Your task to perform on an android device: Show me popular games on the Play Store Image 0: 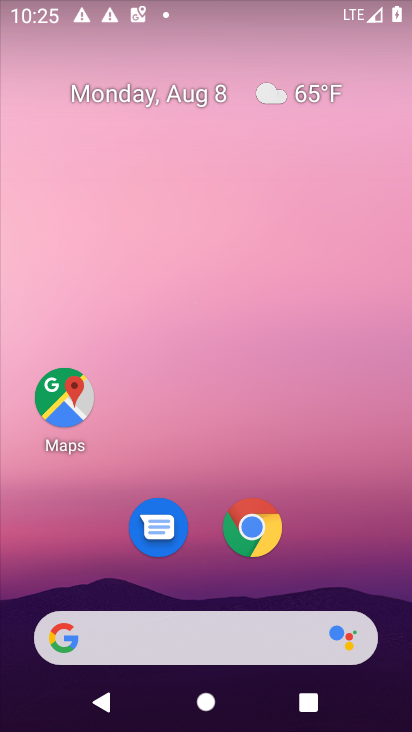
Step 0: drag from (401, 723) to (399, 287)
Your task to perform on an android device: Show me popular games on the Play Store Image 1: 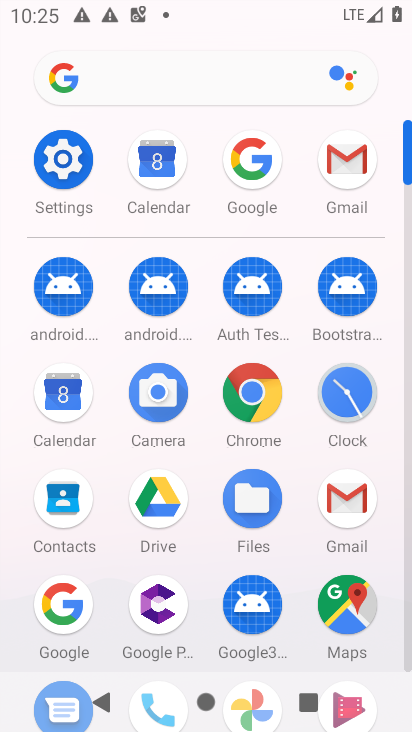
Step 1: drag from (195, 649) to (214, 378)
Your task to perform on an android device: Show me popular games on the Play Store Image 2: 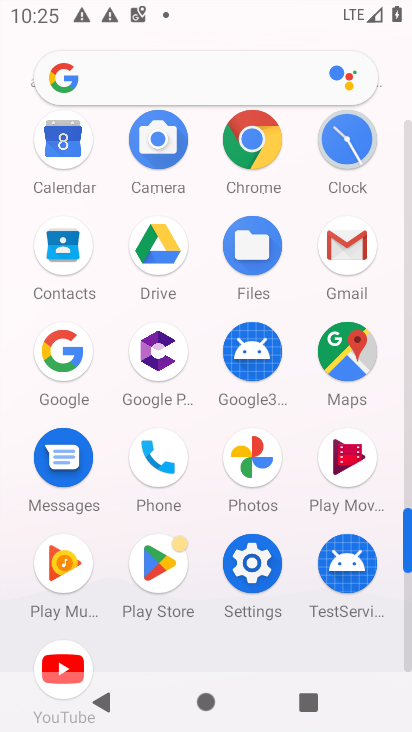
Step 2: click (157, 568)
Your task to perform on an android device: Show me popular games on the Play Store Image 3: 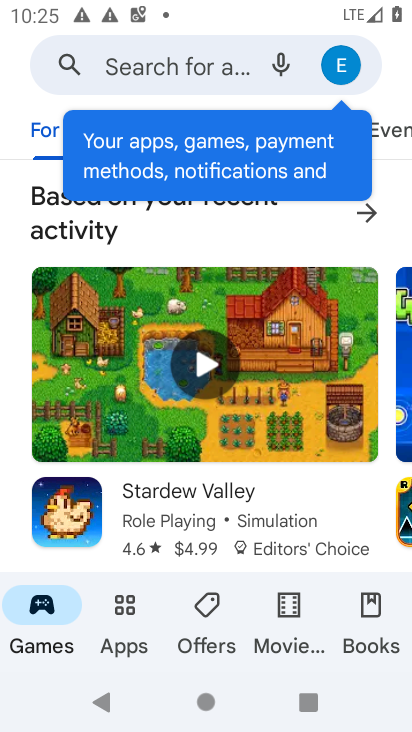
Step 3: click (261, 66)
Your task to perform on an android device: Show me popular games on the Play Store Image 4: 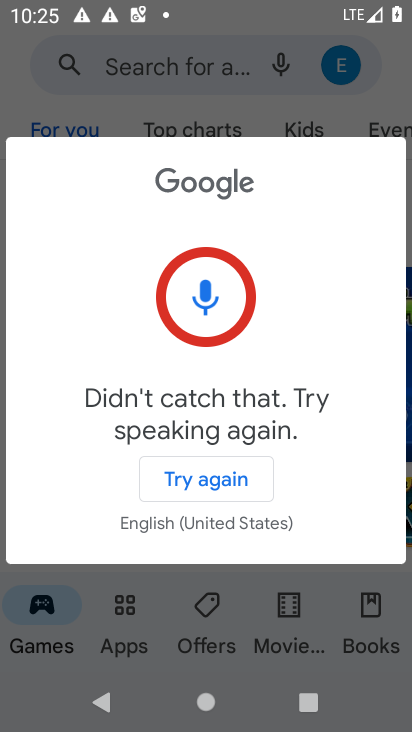
Step 4: press back button
Your task to perform on an android device: Show me popular games on the Play Store Image 5: 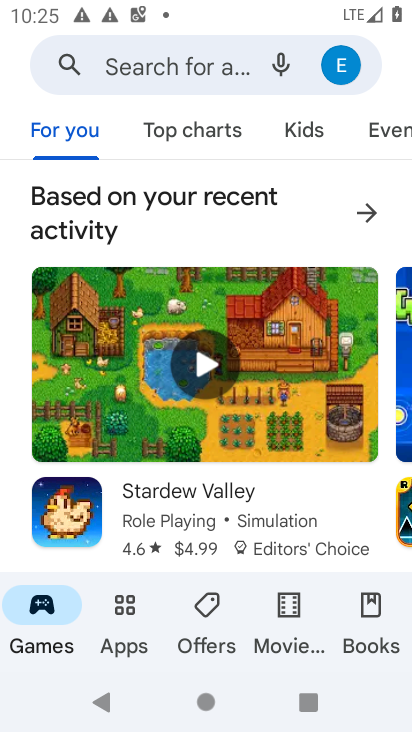
Step 5: click (179, 68)
Your task to perform on an android device: Show me popular games on the Play Store Image 6: 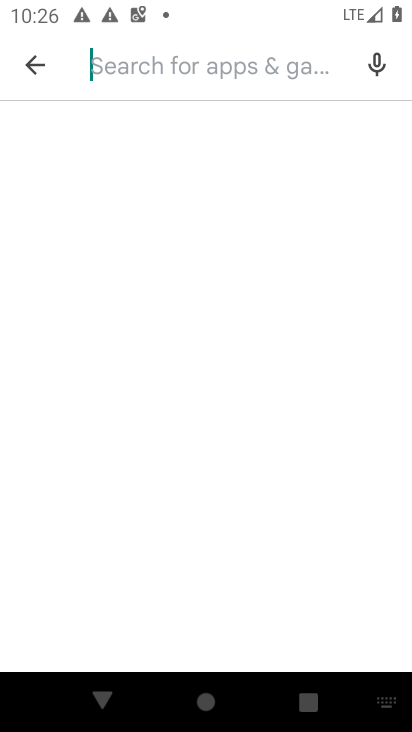
Step 6: type " popular games on the Play Store"
Your task to perform on an android device: Show me popular games on the Play Store Image 7: 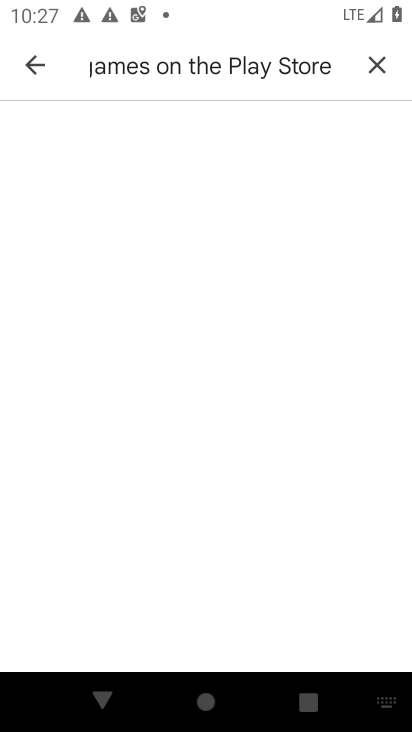
Step 7: task complete